Your task to perform on an android device: Show me the alarms in the clock app Image 0: 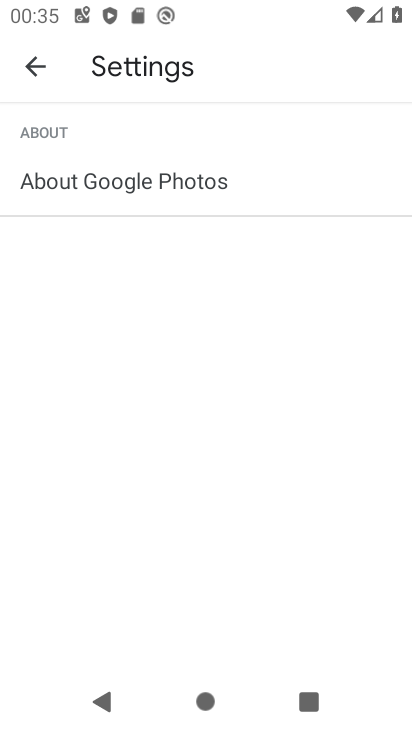
Step 0: press home button
Your task to perform on an android device: Show me the alarms in the clock app Image 1: 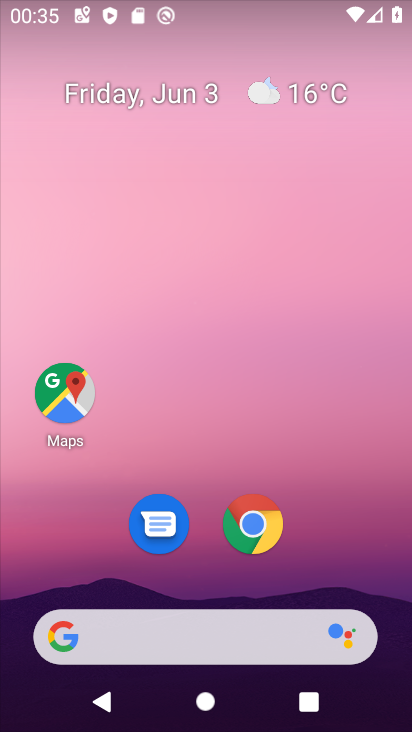
Step 1: drag from (293, 559) to (324, 14)
Your task to perform on an android device: Show me the alarms in the clock app Image 2: 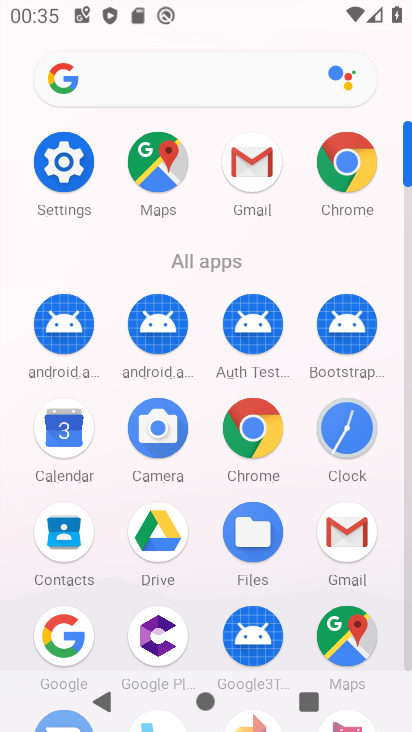
Step 2: click (356, 420)
Your task to perform on an android device: Show me the alarms in the clock app Image 3: 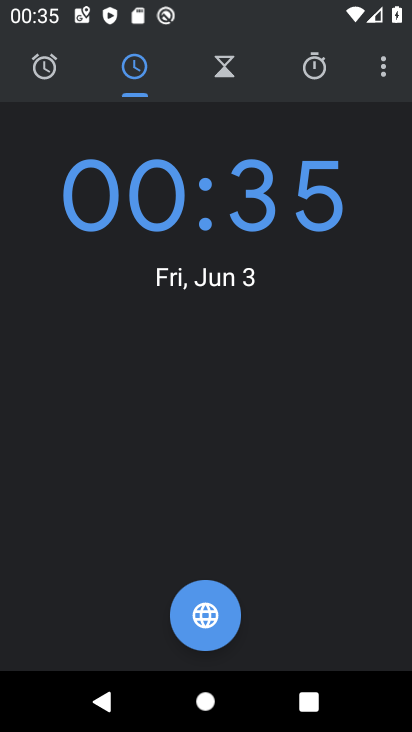
Step 3: click (51, 62)
Your task to perform on an android device: Show me the alarms in the clock app Image 4: 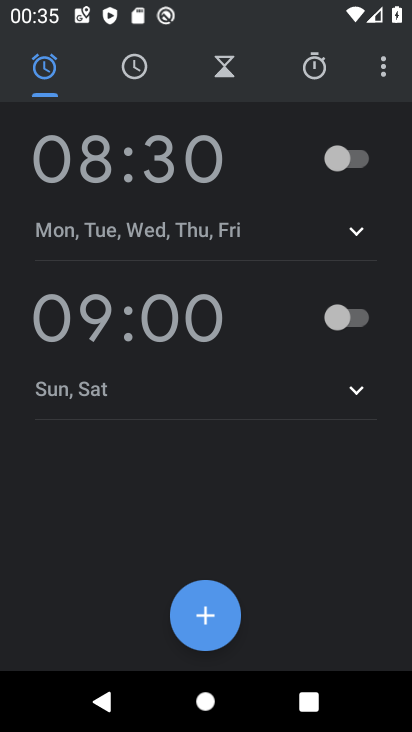
Step 4: task complete